Your task to perform on an android device: Search for dell xps on target.com, select the first entry, add it to the cart, then select checkout. Image 0: 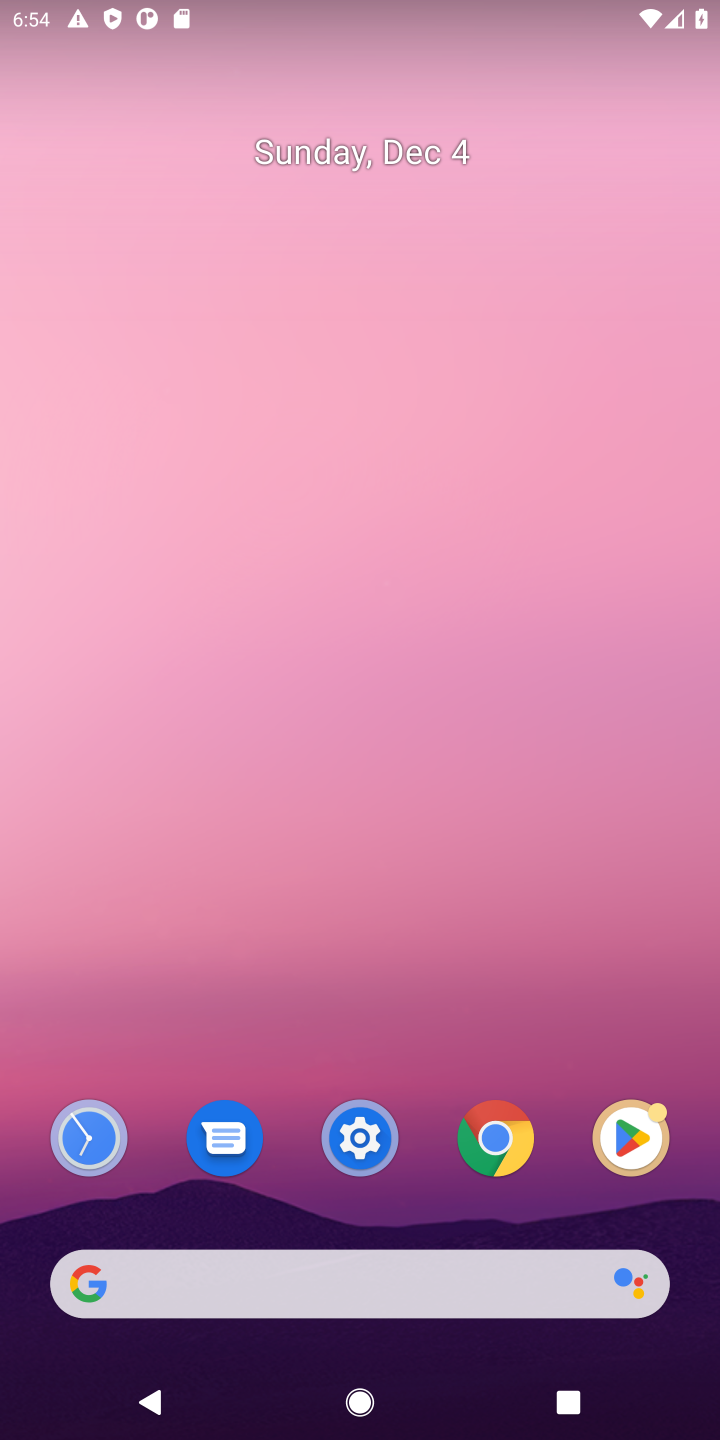
Step 0: click (513, 1140)
Your task to perform on an android device: Search for dell xps on target.com, select the first entry, add it to the cart, then select checkout. Image 1: 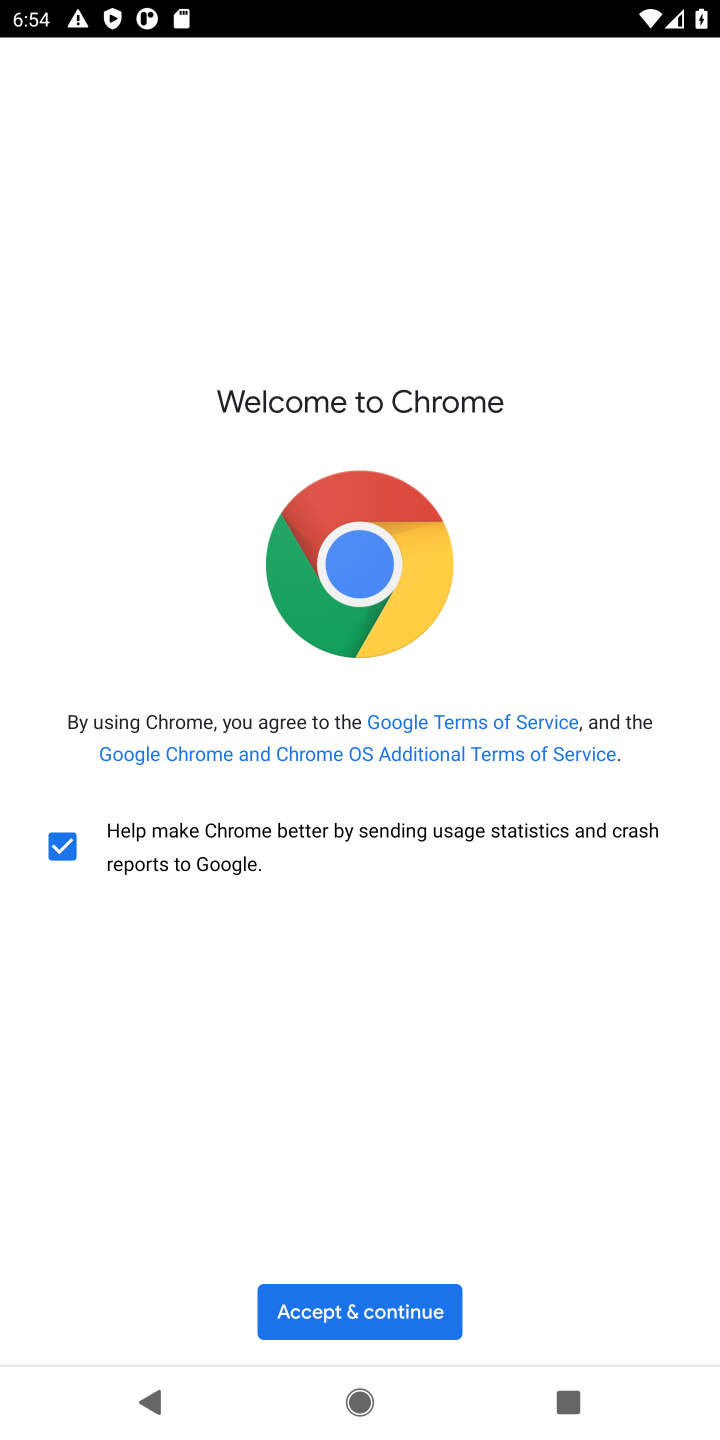
Step 1: click (347, 1311)
Your task to perform on an android device: Search for dell xps on target.com, select the first entry, add it to the cart, then select checkout. Image 2: 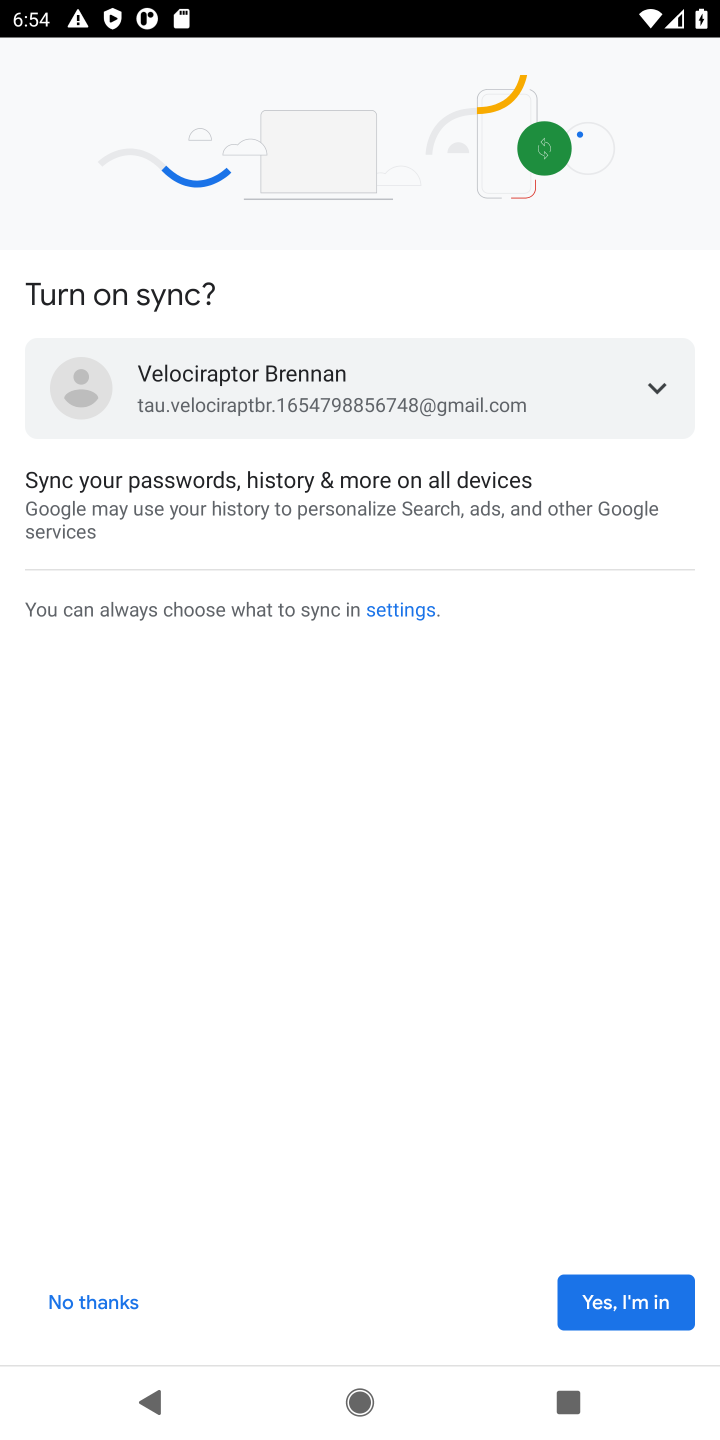
Step 2: click (590, 1302)
Your task to perform on an android device: Search for dell xps on target.com, select the first entry, add it to the cart, then select checkout. Image 3: 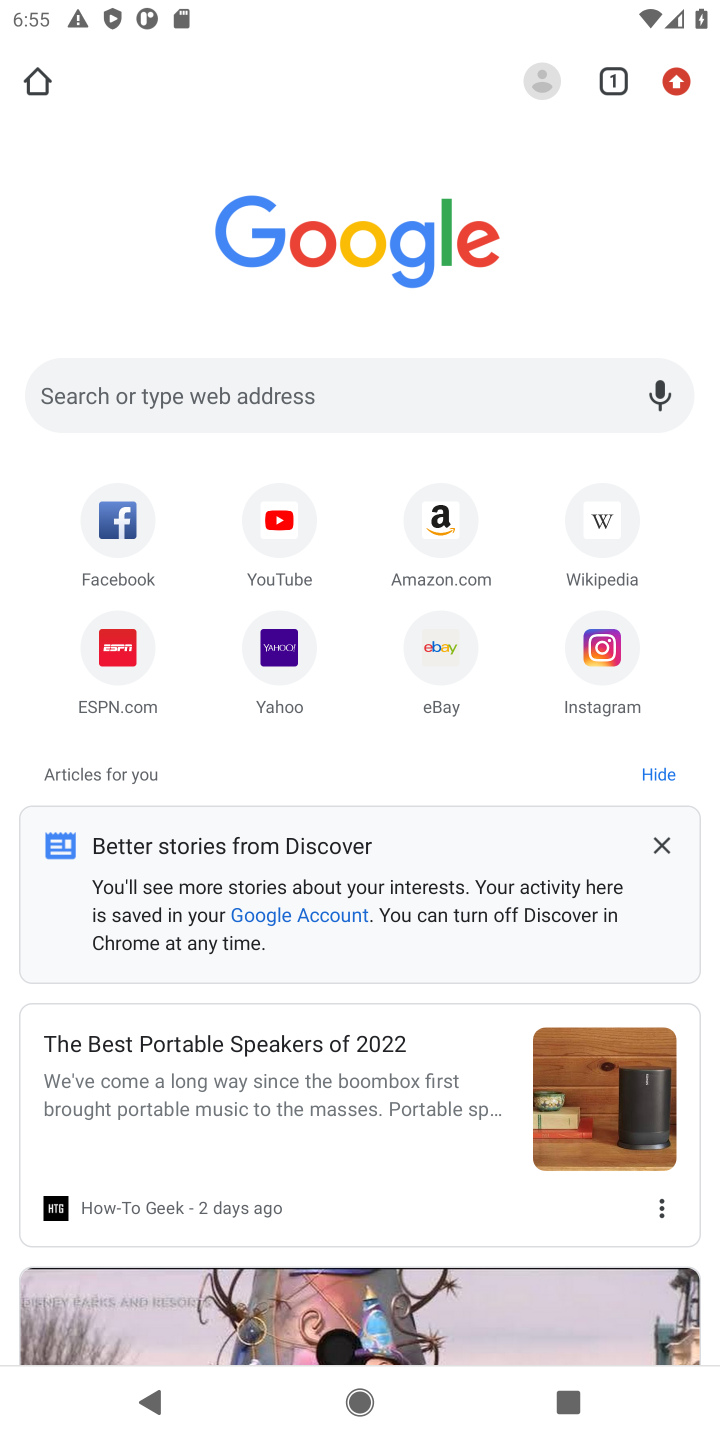
Step 3: click (327, 379)
Your task to perform on an android device: Search for dell xps on target.com, select the first entry, add it to the cart, then select checkout. Image 4: 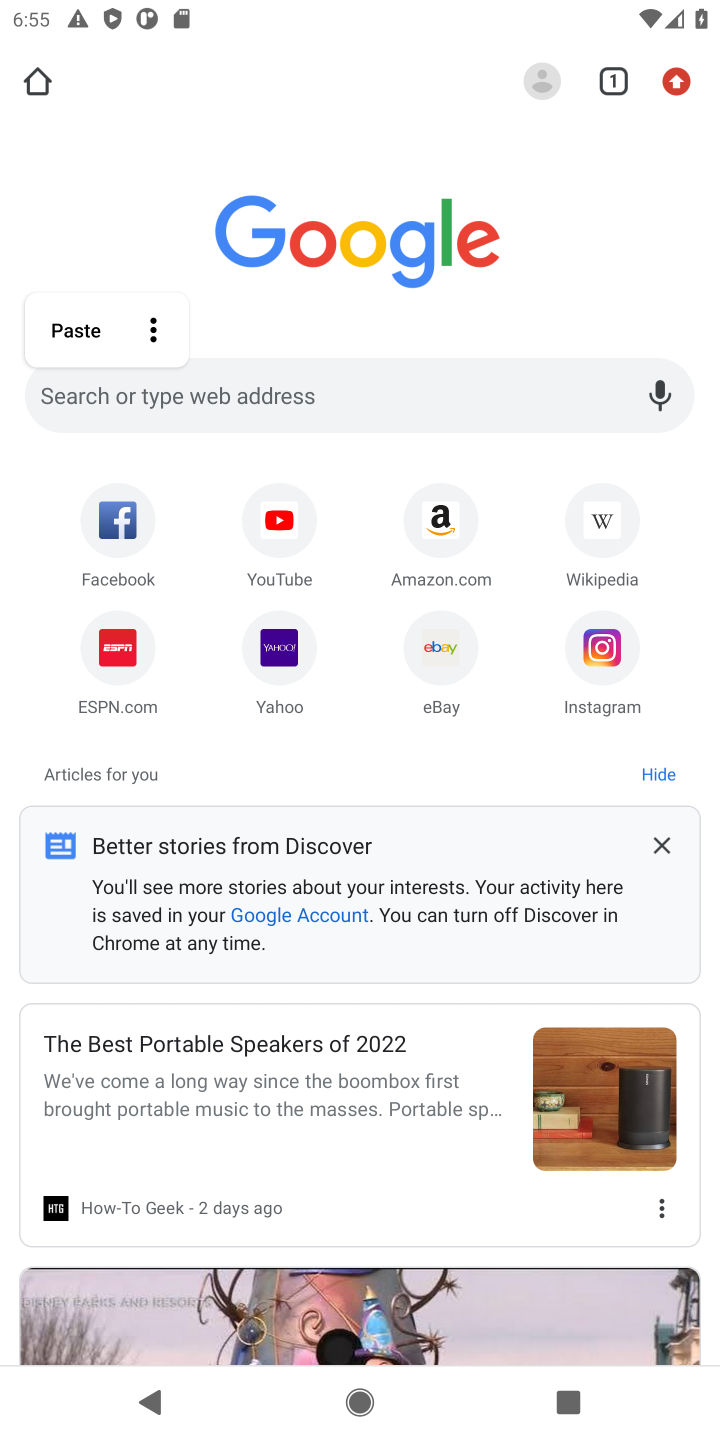
Step 4: click (533, 403)
Your task to perform on an android device: Search for dell xps on target.com, select the first entry, add it to the cart, then select checkout. Image 5: 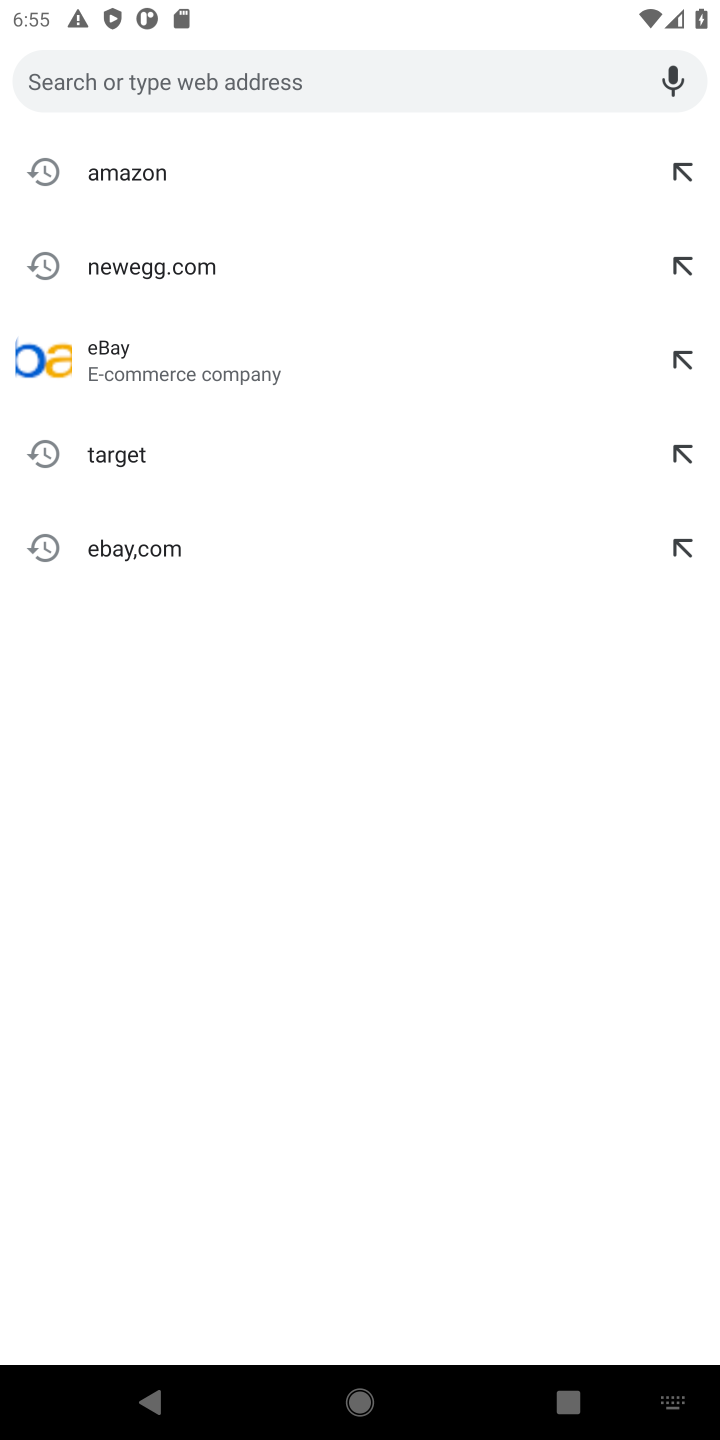
Step 5: type " target.com"
Your task to perform on an android device: Search for dell xps on target.com, select the first entry, add it to the cart, then select checkout. Image 6: 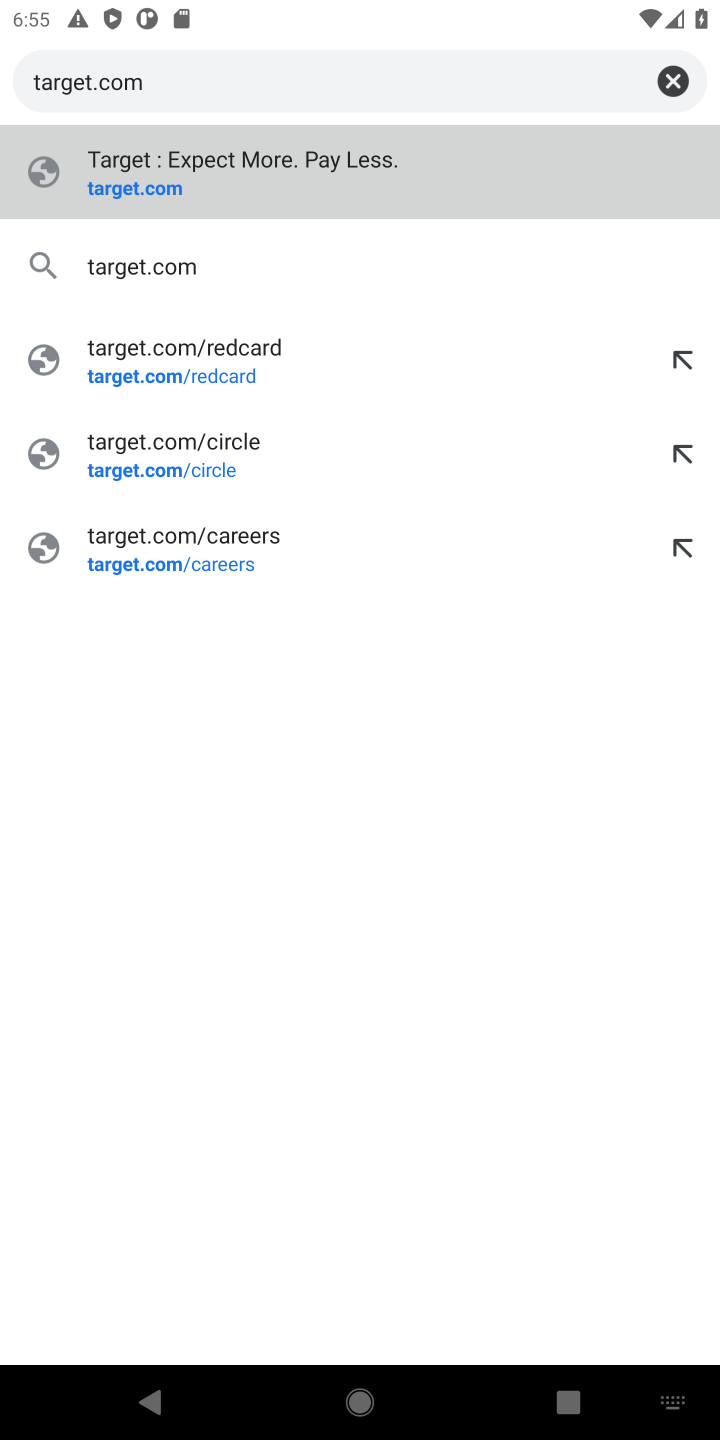
Step 6: press enter
Your task to perform on an android device: Search for dell xps on target.com, select the first entry, add it to the cart, then select checkout. Image 7: 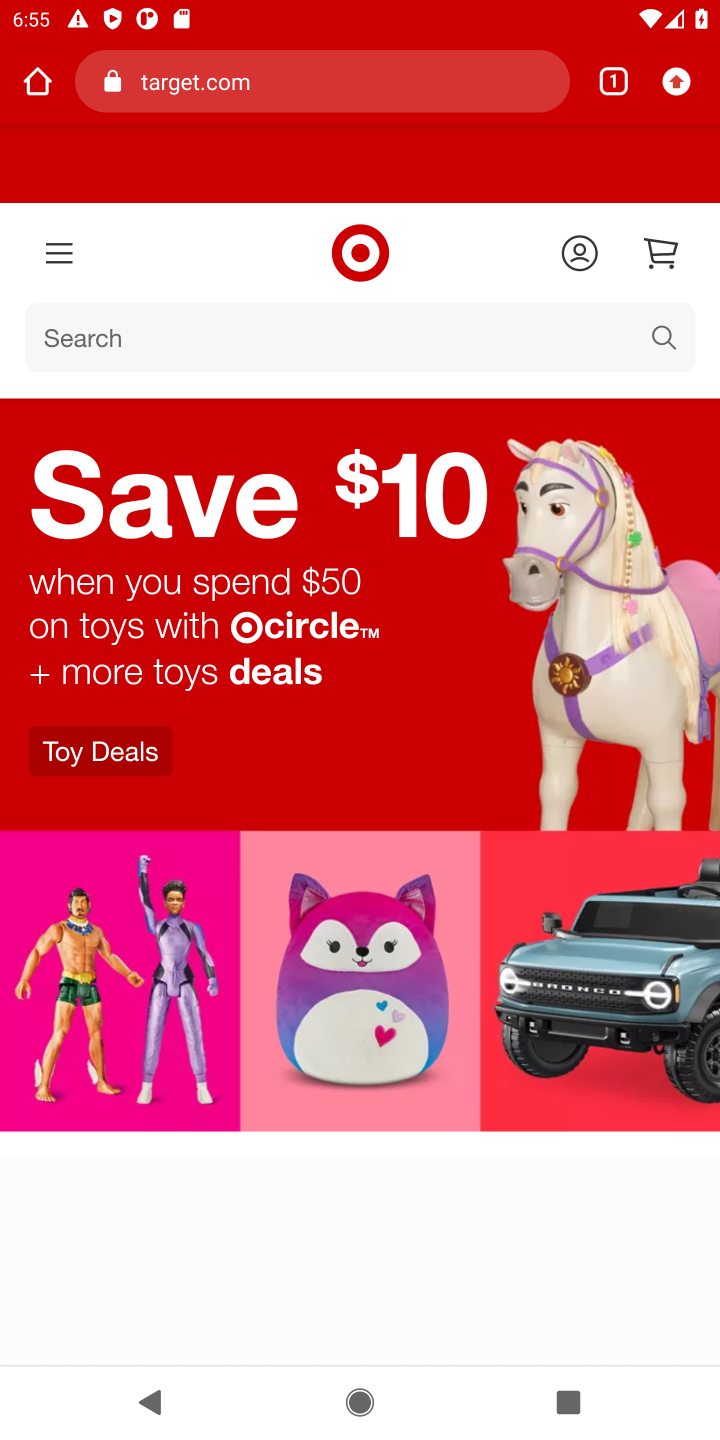
Step 7: click (666, 341)
Your task to perform on an android device: Search for dell xps on target.com, select the first entry, add it to the cart, then select checkout. Image 8: 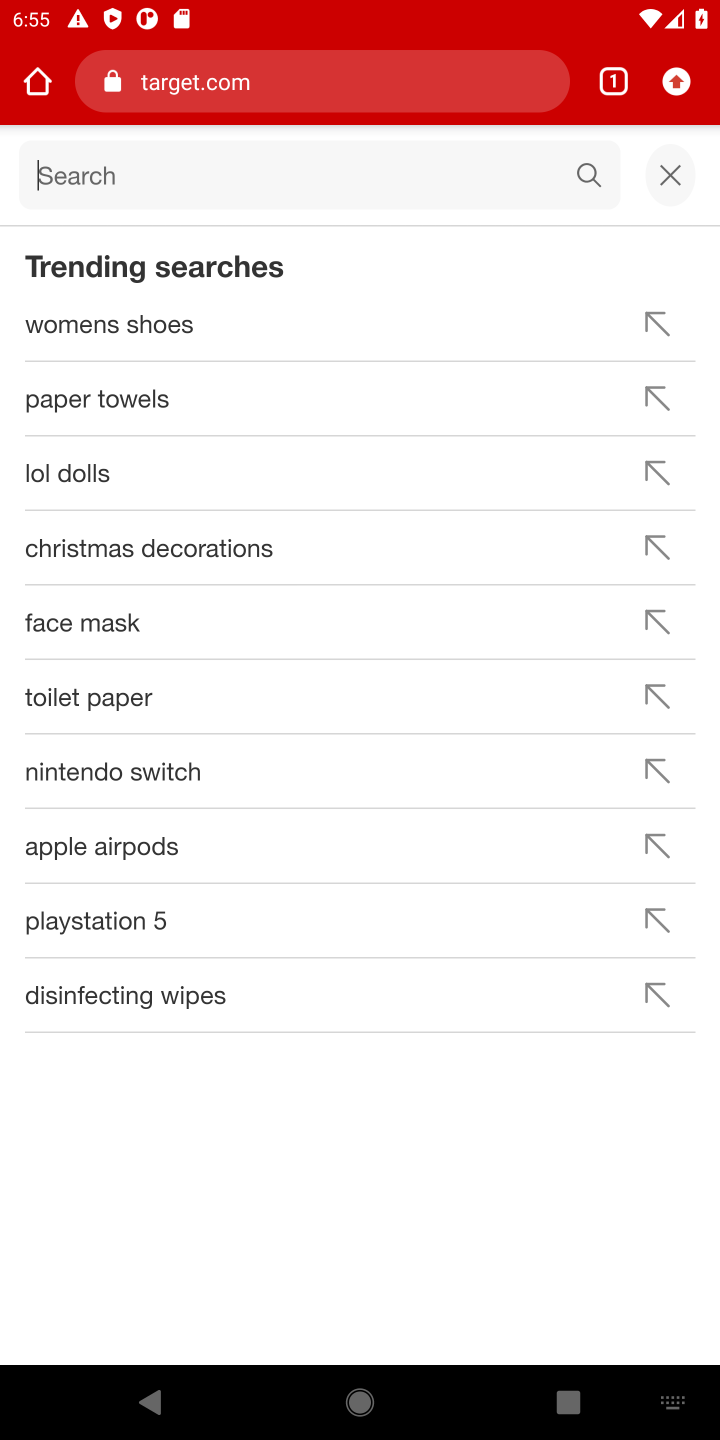
Step 8: type "dell xps"
Your task to perform on an android device: Search for dell xps on target.com, select the first entry, add it to the cart, then select checkout. Image 9: 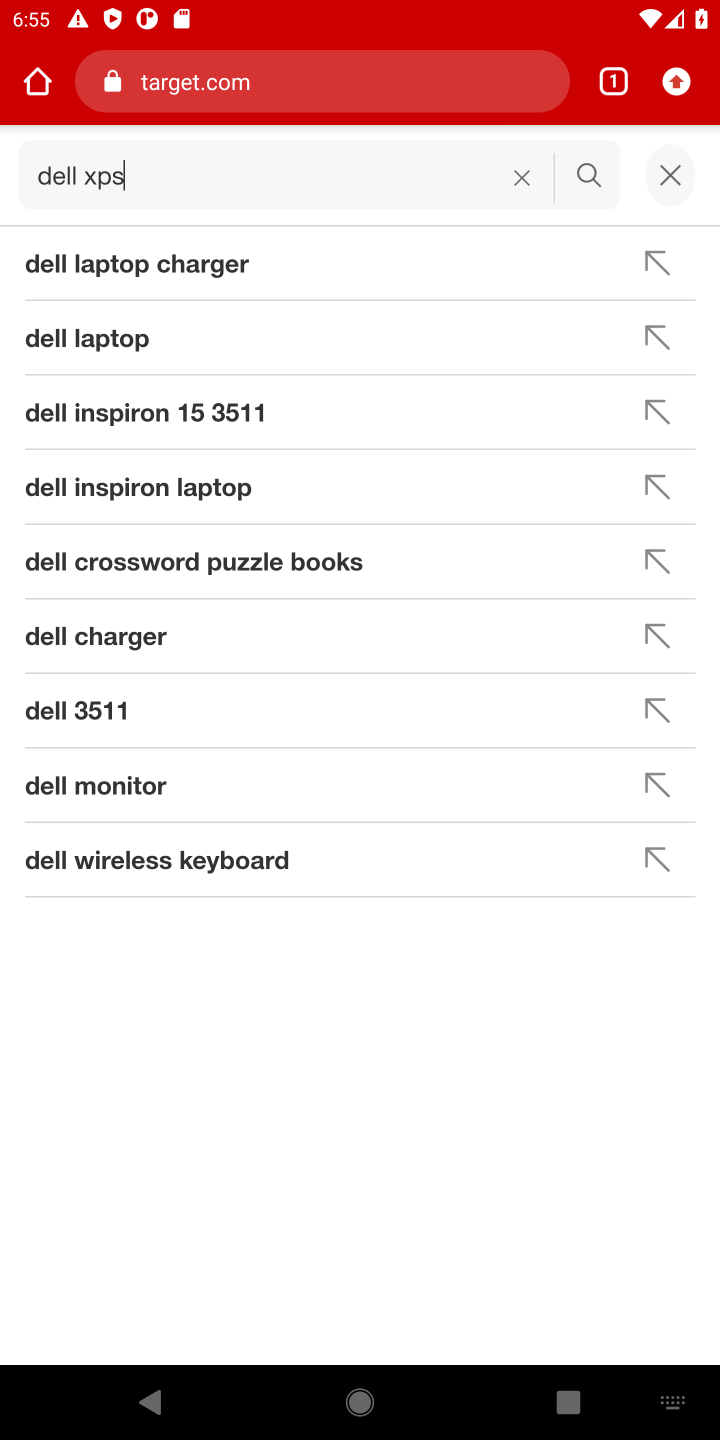
Step 9: press enter
Your task to perform on an android device: Search for dell xps on target.com, select the first entry, add it to the cart, then select checkout. Image 10: 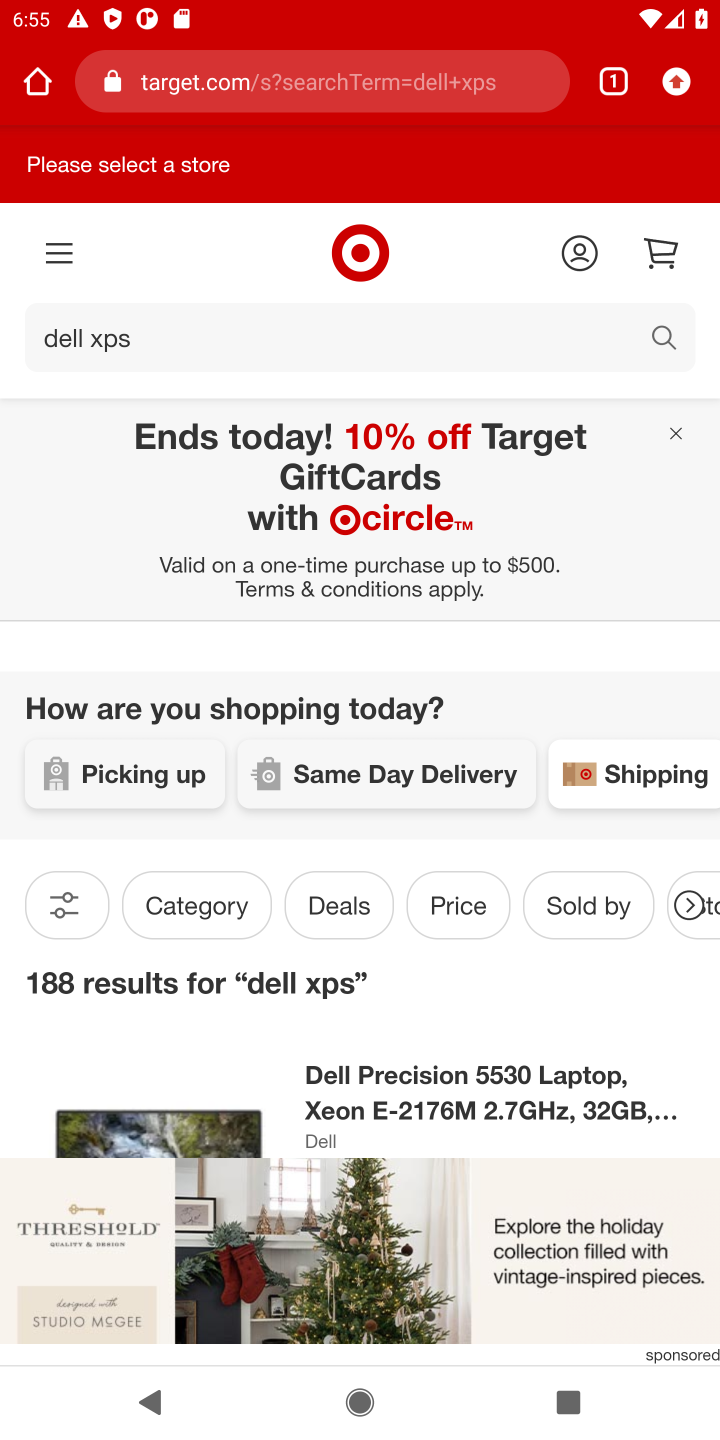
Step 10: task complete